Your task to perform on an android device: open chrome privacy settings Image 0: 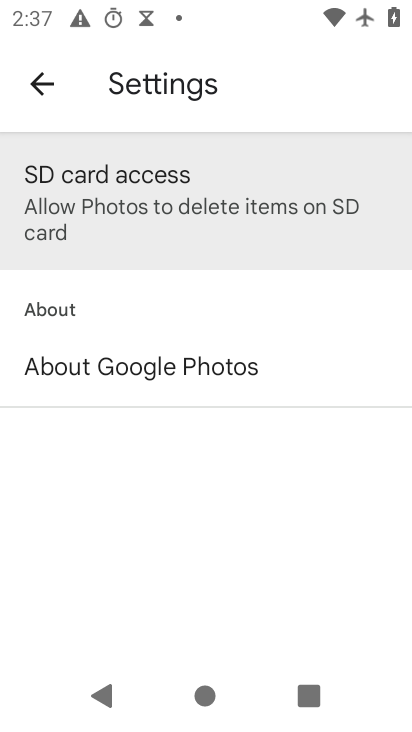
Step 0: press home button
Your task to perform on an android device: open chrome privacy settings Image 1: 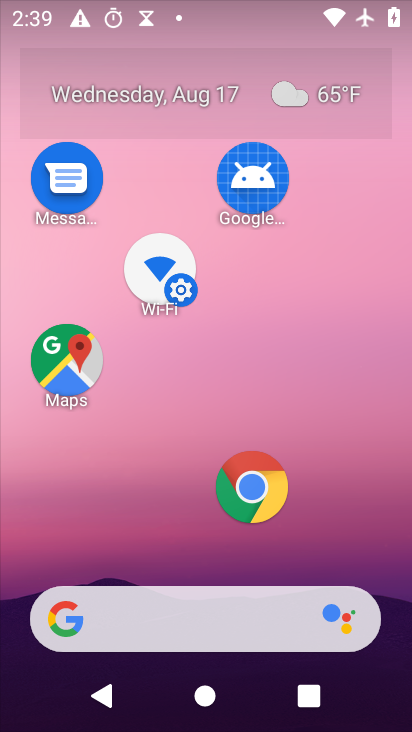
Step 1: drag from (157, 576) to (171, 109)
Your task to perform on an android device: open chrome privacy settings Image 2: 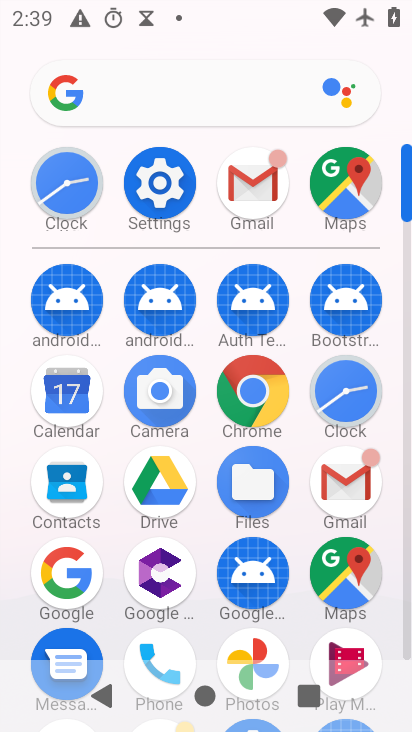
Step 2: click (256, 401)
Your task to perform on an android device: open chrome privacy settings Image 3: 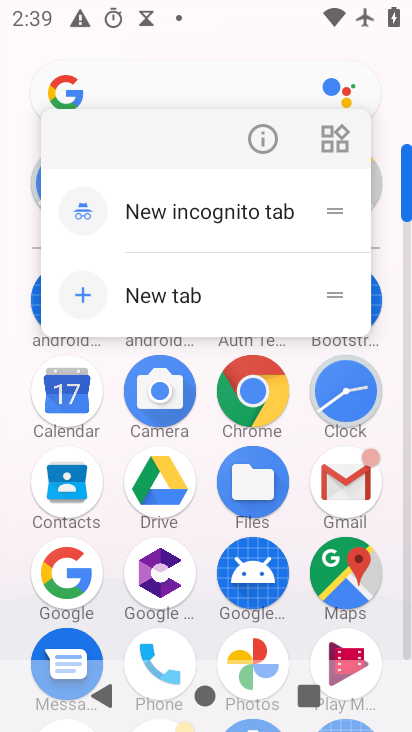
Step 3: click (256, 401)
Your task to perform on an android device: open chrome privacy settings Image 4: 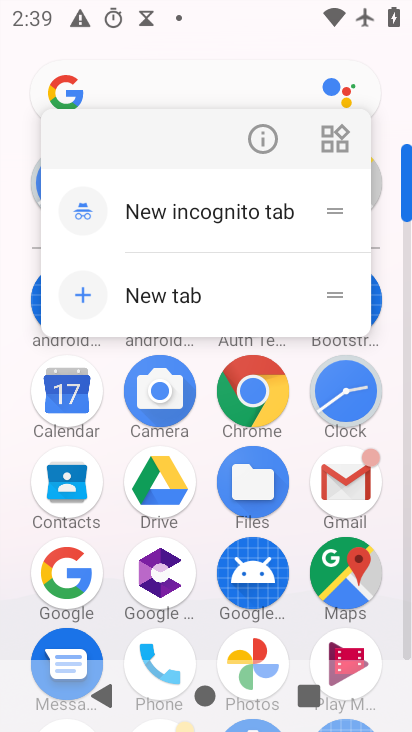
Step 4: click (256, 401)
Your task to perform on an android device: open chrome privacy settings Image 5: 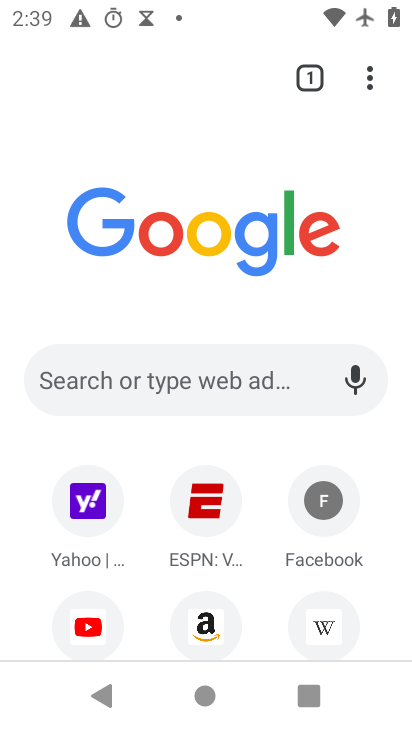
Step 5: click (361, 77)
Your task to perform on an android device: open chrome privacy settings Image 6: 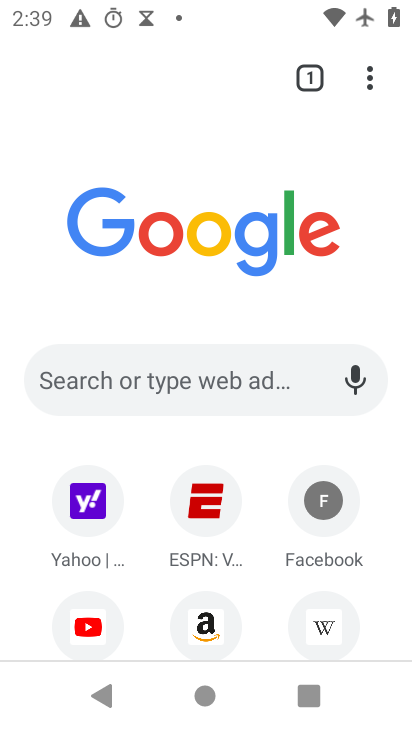
Step 6: click (361, 77)
Your task to perform on an android device: open chrome privacy settings Image 7: 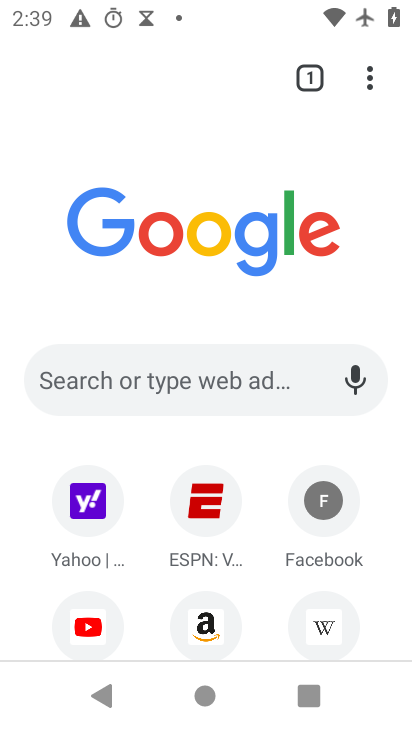
Step 7: drag from (361, 77) to (253, 556)
Your task to perform on an android device: open chrome privacy settings Image 8: 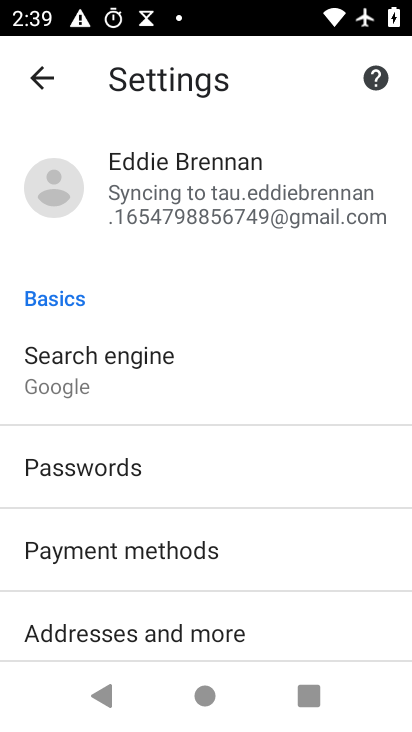
Step 8: drag from (271, 652) to (156, 0)
Your task to perform on an android device: open chrome privacy settings Image 9: 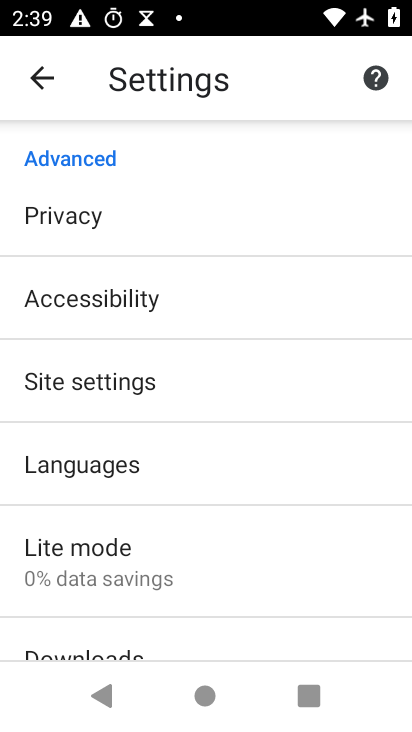
Step 9: click (64, 212)
Your task to perform on an android device: open chrome privacy settings Image 10: 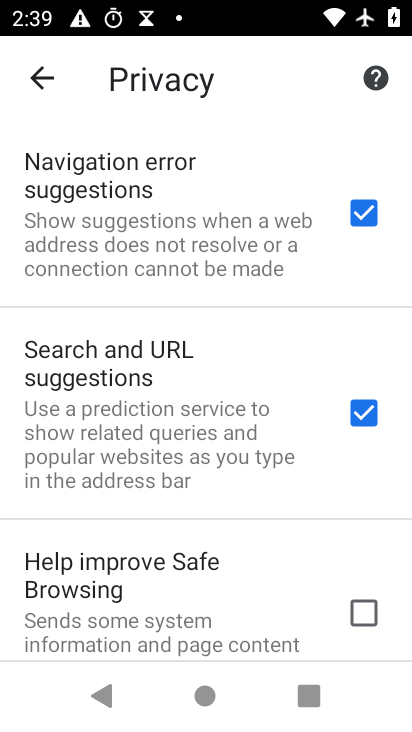
Step 10: click (114, 171)
Your task to perform on an android device: open chrome privacy settings Image 11: 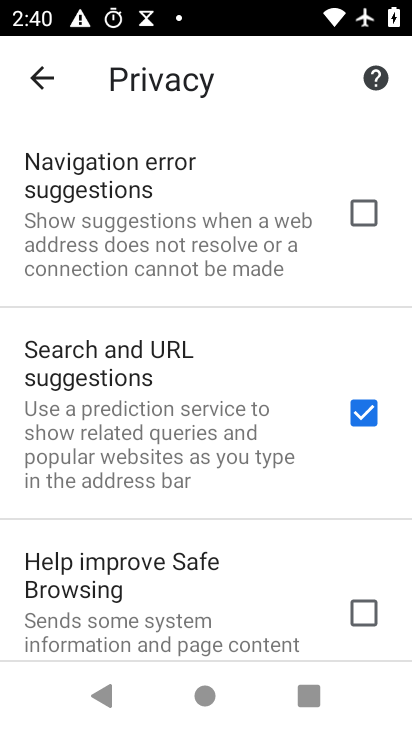
Step 11: task complete